Your task to perform on an android device: turn on priority inbox in the gmail app Image 0: 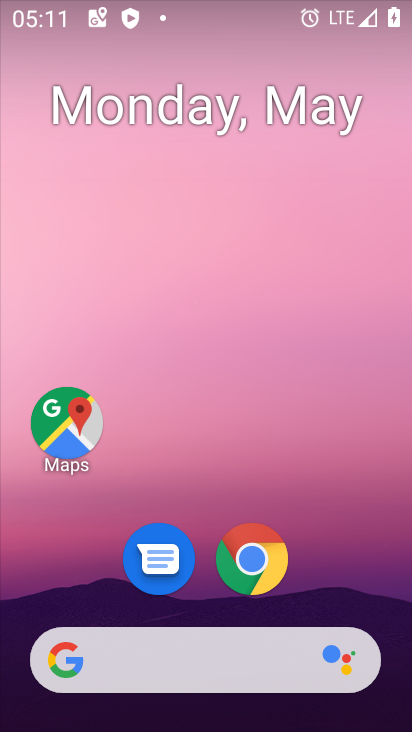
Step 0: drag from (233, 584) to (258, 2)
Your task to perform on an android device: turn on priority inbox in the gmail app Image 1: 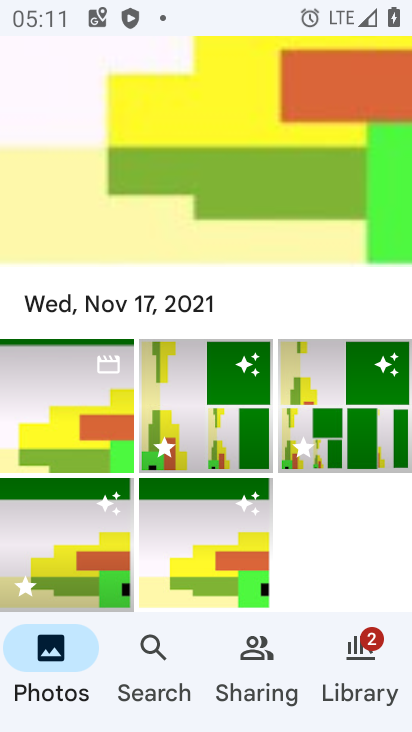
Step 1: press home button
Your task to perform on an android device: turn on priority inbox in the gmail app Image 2: 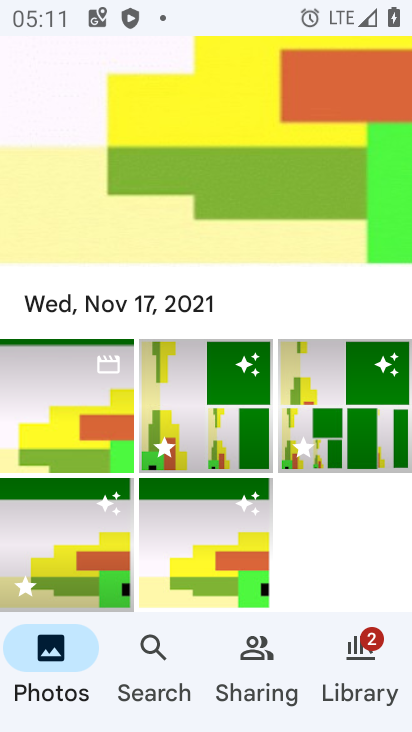
Step 2: click (409, 584)
Your task to perform on an android device: turn on priority inbox in the gmail app Image 3: 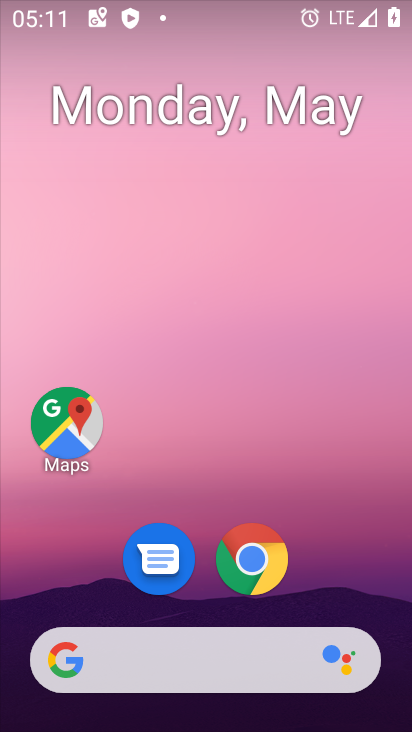
Step 3: drag from (166, 661) to (71, 11)
Your task to perform on an android device: turn on priority inbox in the gmail app Image 4: 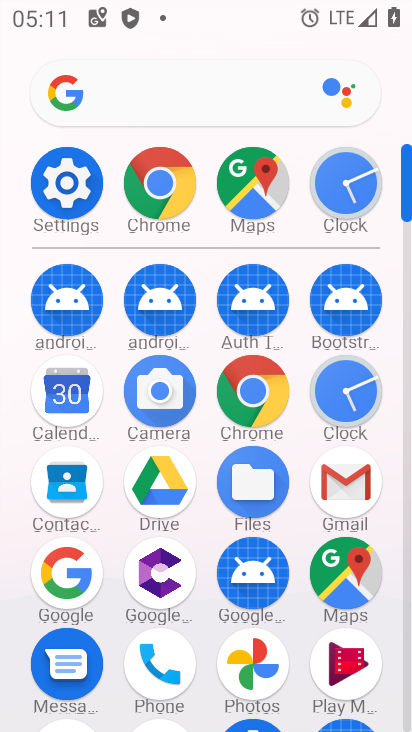
Step 4: click (363, 492)
Your task to perform on an android device: turn on priority inbox in the gmail app Image 5: 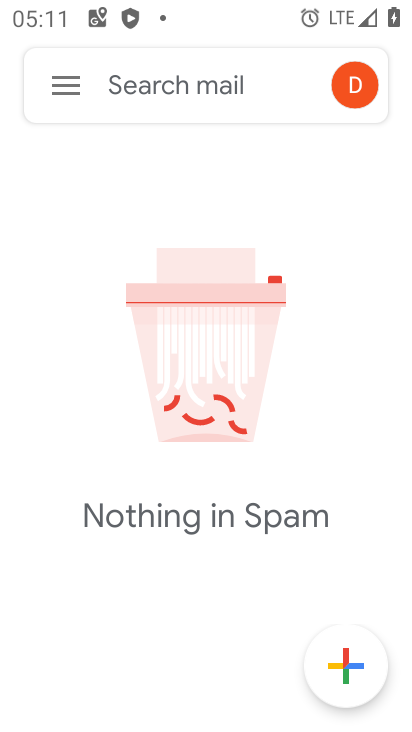
Step 5: click (82, 87)
Your task to perform on an android device: turn on priority inbox in the gmail app Image 6: 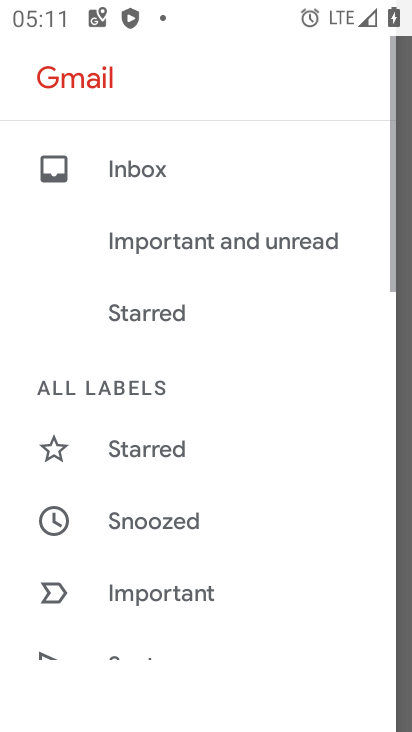
Step 6: drag from (219, 613) to (231, 62)
Your task to perform on an android device: turn on priority inbox in the gmail app Image 7: 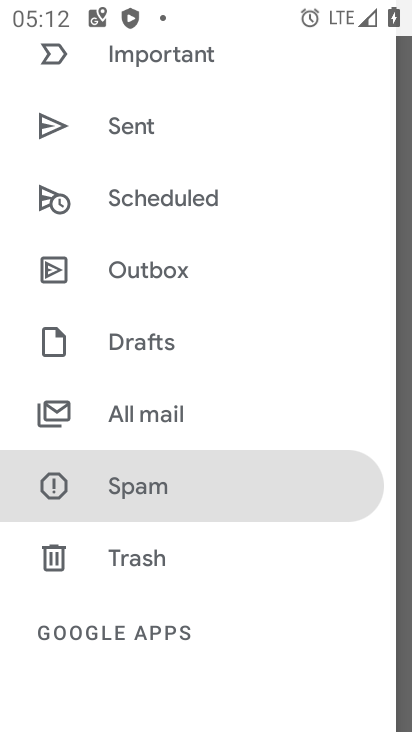
Step 7: drag from (228, 600) to (258, 298)
Your task to perform on an android device: turn on priority inbox in the gmail app Image 8: 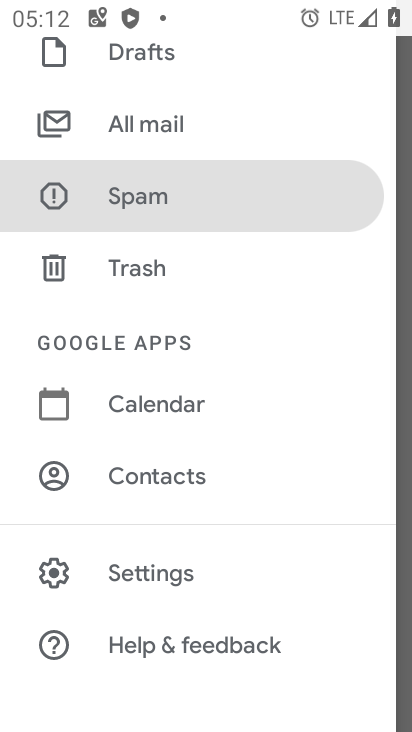
Step 8: click (168, 585)
Your task to perform on an android device: turn on priority inbox in the gmail app Image 9: 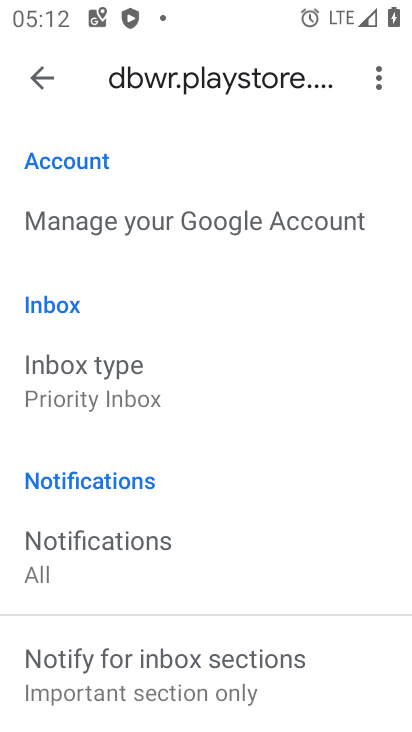
Step 9: click (148, 391)
Your task to perform on an android device: turn on priority inbox in the gmail app Image 10: 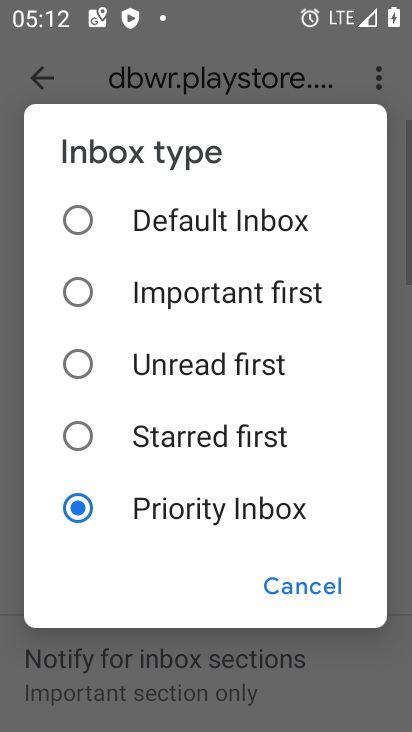
Step 10: task complete